Your task to perform on an android device: stop showing notifications on the lock screen Image 0: 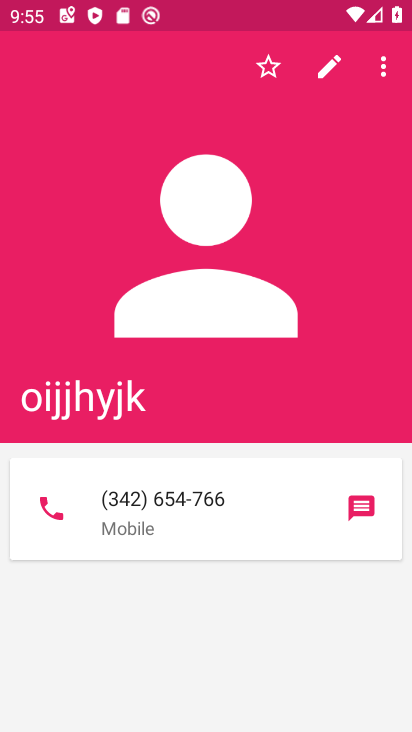
Step 0: press home button
Your task to perform on an android device: stop showing notifications on the lock screen Image 1: 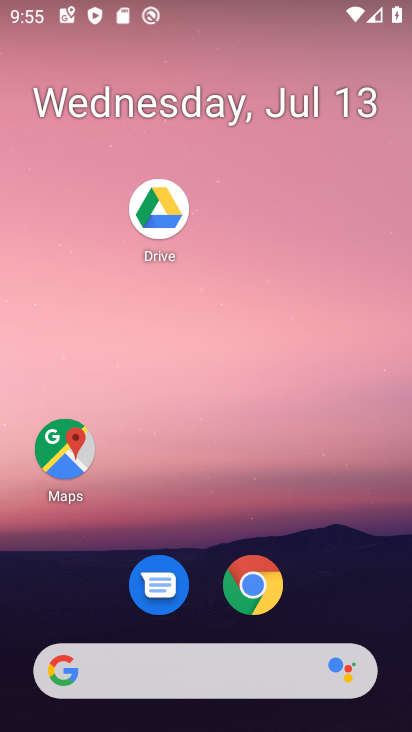
Step 1: drag from (183, 672) to (235, 119)
Your task to perform on an android device: stop showing notifications on the lock screen Image 2: 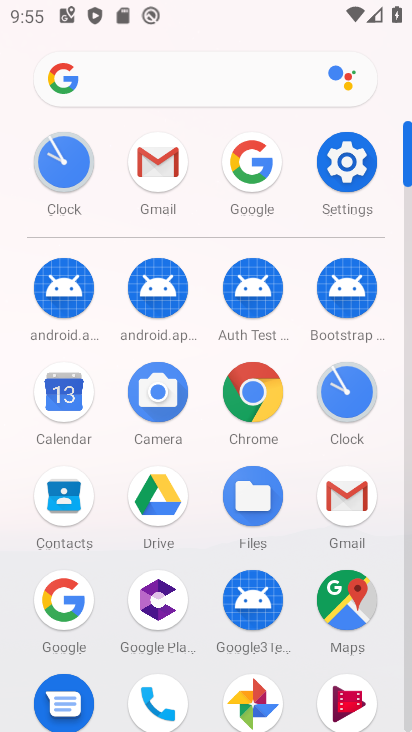
Step 2: click (349, 164)
Your task to perform on an android device: stop showing notifications on the lock screen Image 3: 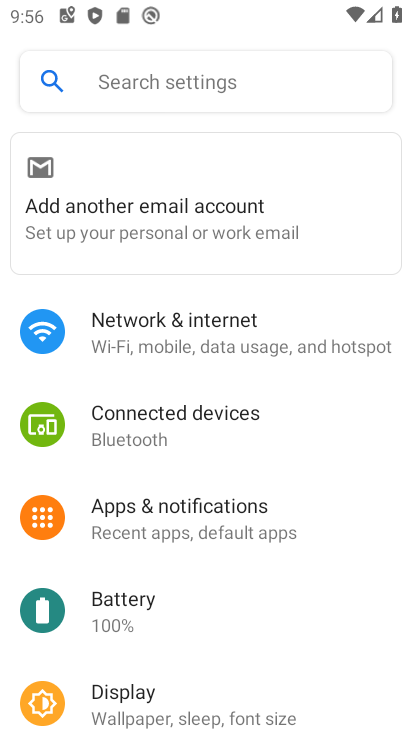
Step 3: click (199, 508)
Your task to perform on an android device: stop showing notifications on the lock screen Image 4: 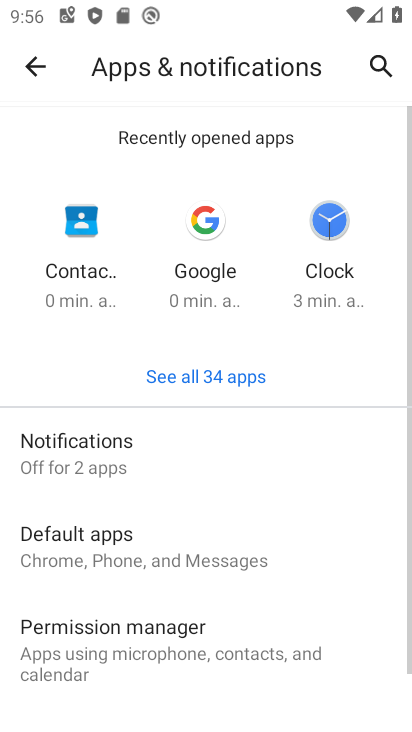
Step 4: click (66, 465)
Your task to perform on an android device: stop showing notifications on the lock screen Image 5: 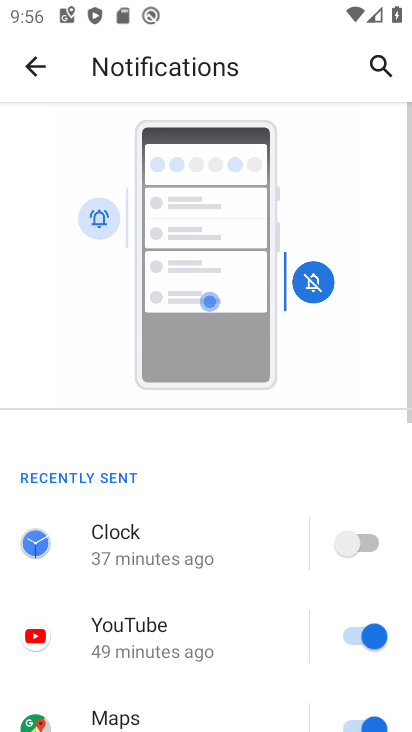
Step 5: drag from (207, 649) to (291, 192)
Your task to perform on an android device: stop showing notifications on the lock screen Image 6: 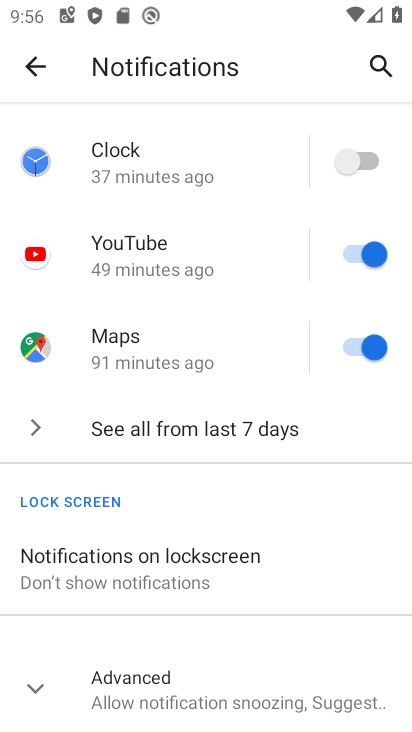
Step 6: click (184, 544)
Your task to perform on an android device: stop showing notifications on the lock screen Image 7: 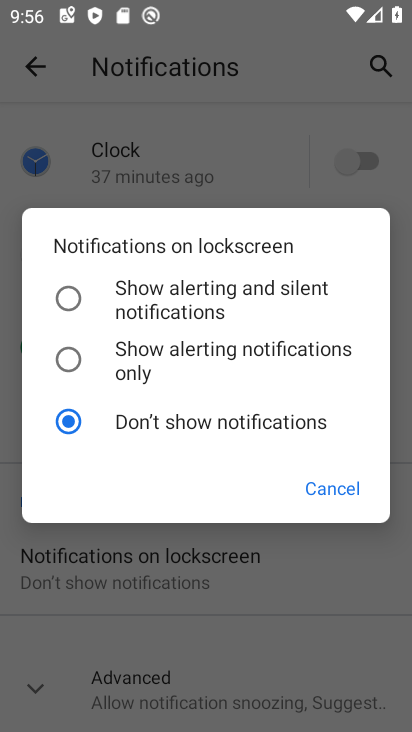
Step 7: task complete